Your task to perform on an android device: install app "Facebook Messenger" Image 0: 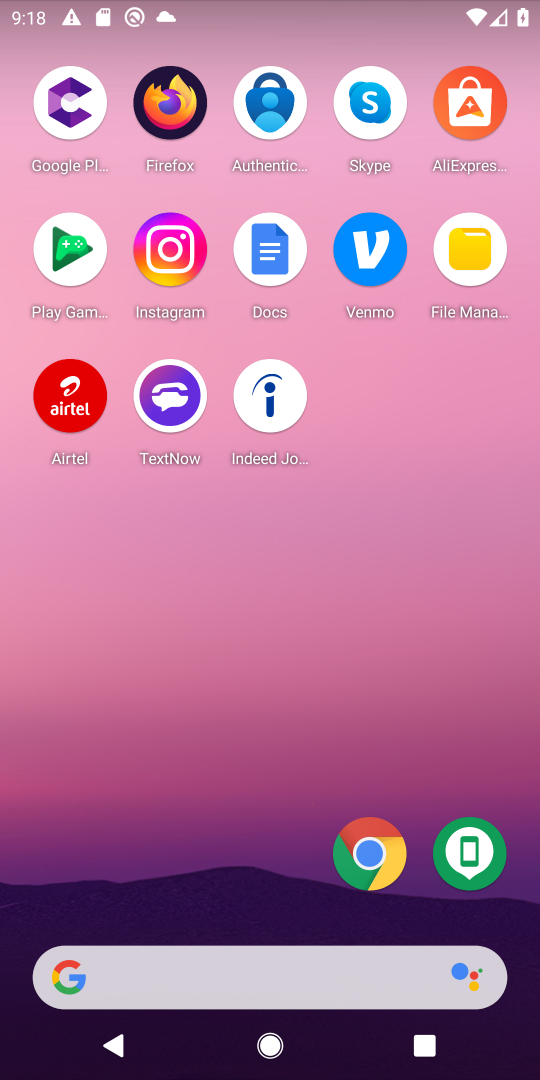
Step 0: drag from (245, 830) to (350, 34)
Your task to perform on an android device: install app "Facebook Messenger" Image 1: 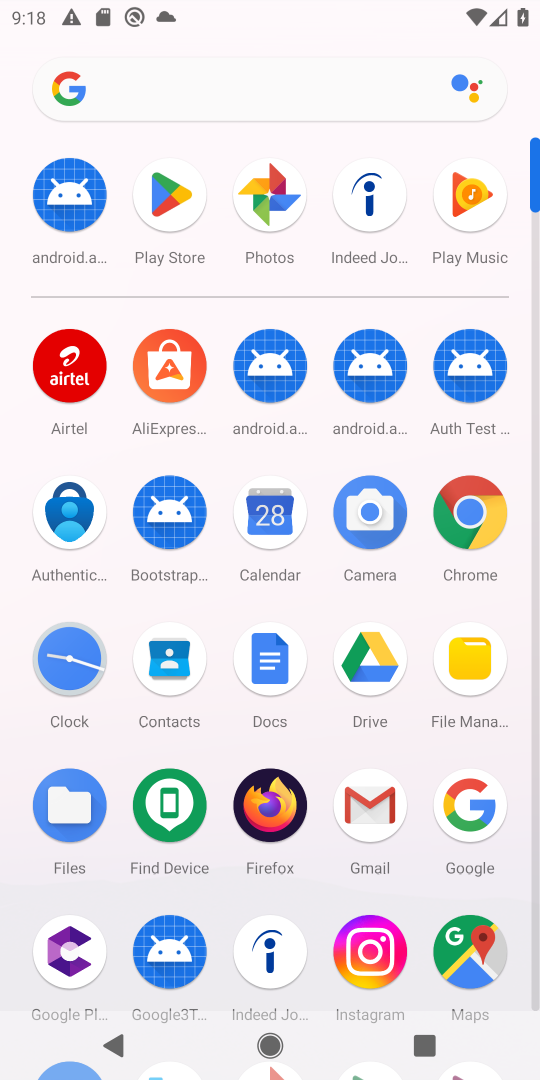
Step 1: click (163, 207)
Your task to perform on an android device: install app "Facebook Messenger" Image 2: 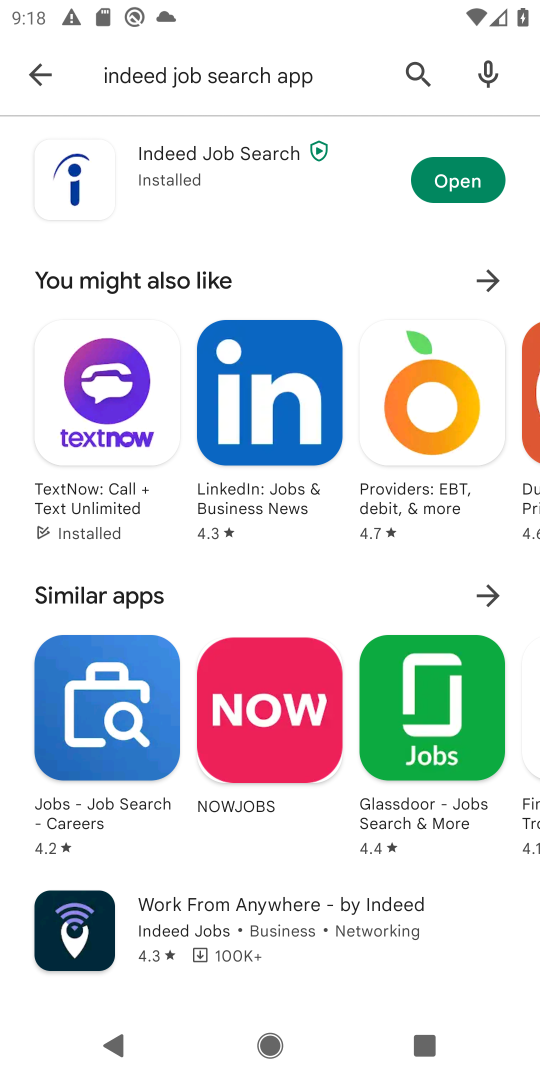
Step 2: click (35, 67)
Your task to perform on an android device: install app "Facebook Messenger" Image 3: 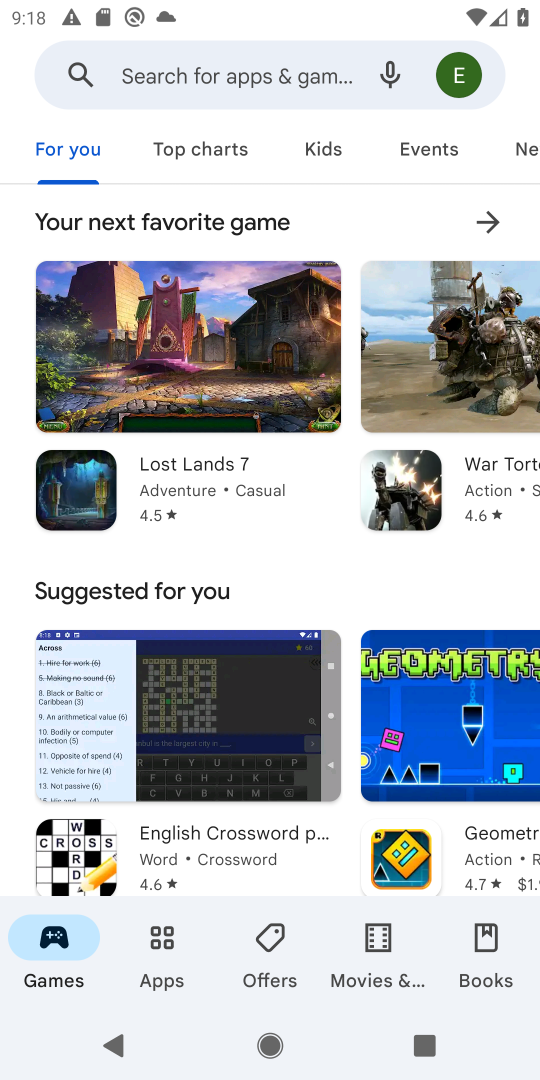
Step 3: click (304, 61)
Your task to perform on an android device: install app "Facebook Messenger" Image 4: 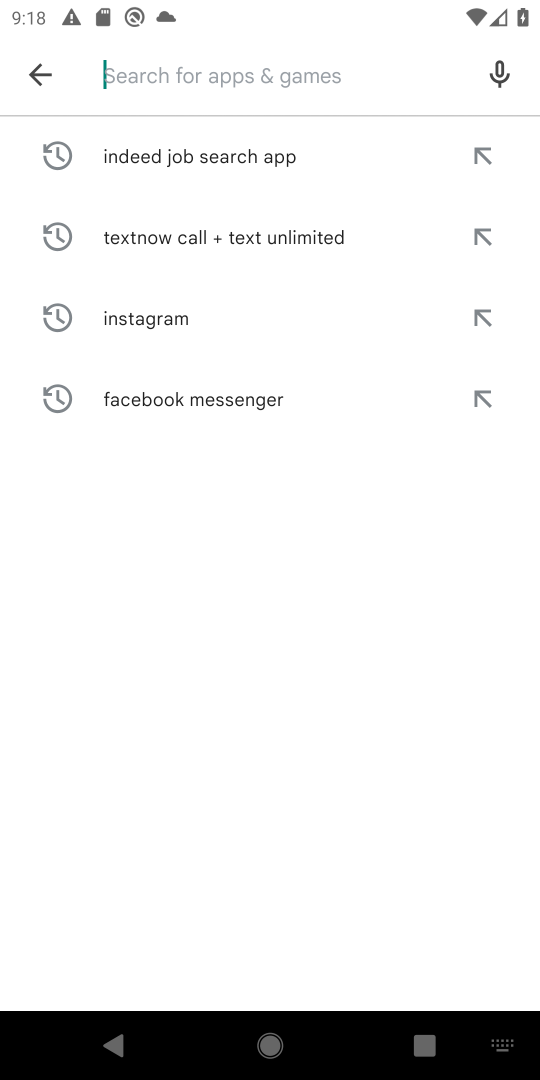
Step 4: type ""Facebook Messenger"
Your task to perform on an android device: install app "Facebook Messenger" Image 5: 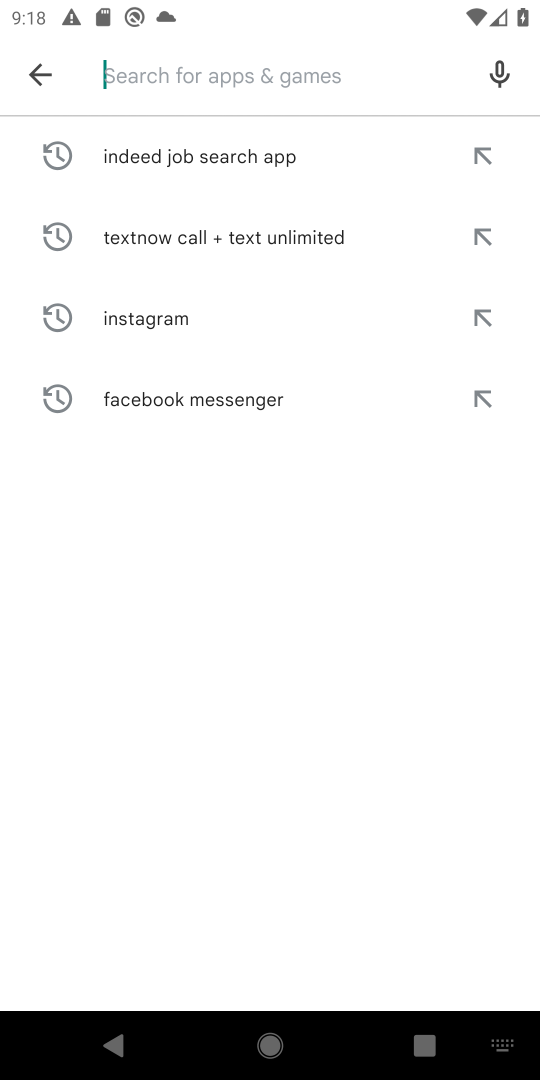
Step 5: click (154, 65)
Your task to perform on an android device: install app "Facebook Messenger" Image 6: 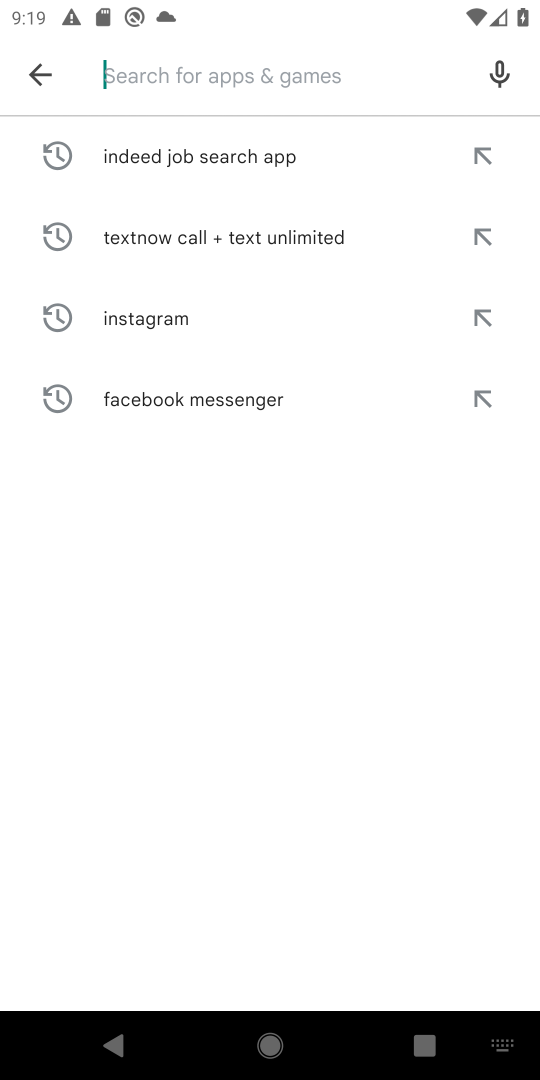
Step 6: type ""Facebook Messenger"
Your task to perform on an android device: install app "Facebook Messenger" Image 7: 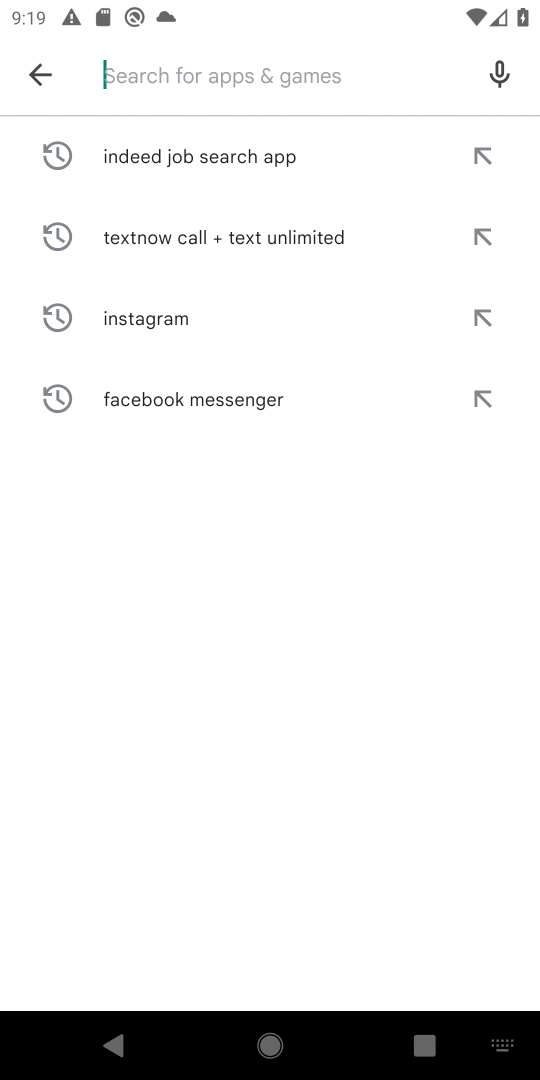
Step 7: type "facebook messenger"
Your task to perform on an android device: install app "Facebook Messenger" Image 8: 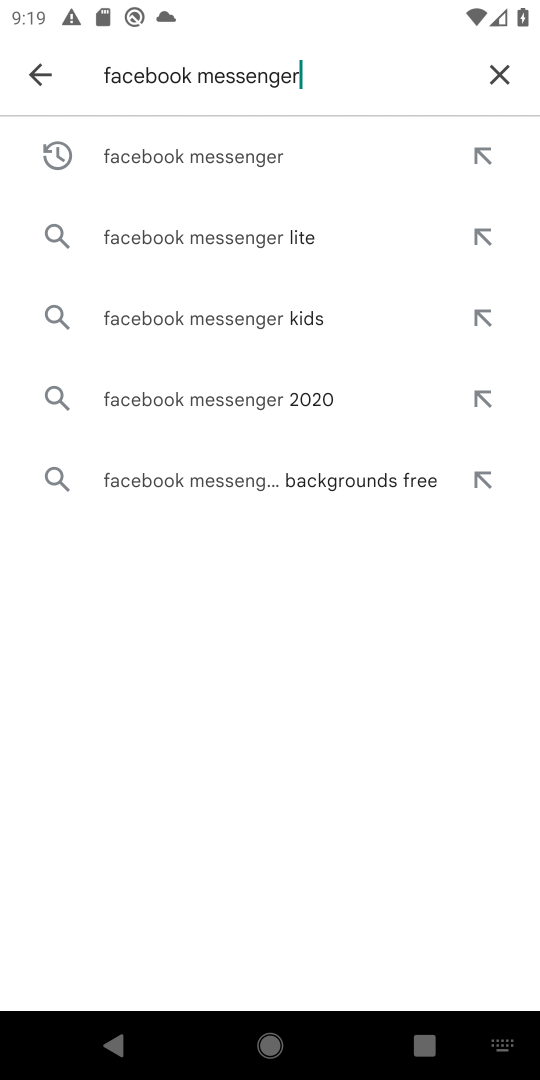
Step 8: click (204, 173)
Your task to perform on an android device: install app "Facebook Messenger" Image 9: 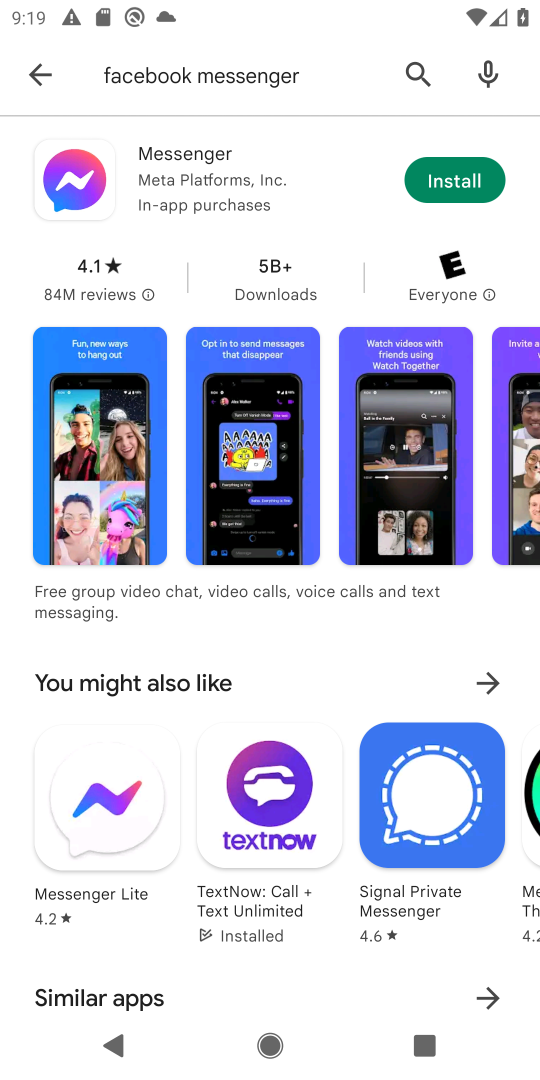
Step 9: click (459, 177)
Your task to perform on an android device: install app "Facebook Messenger" Image 10: 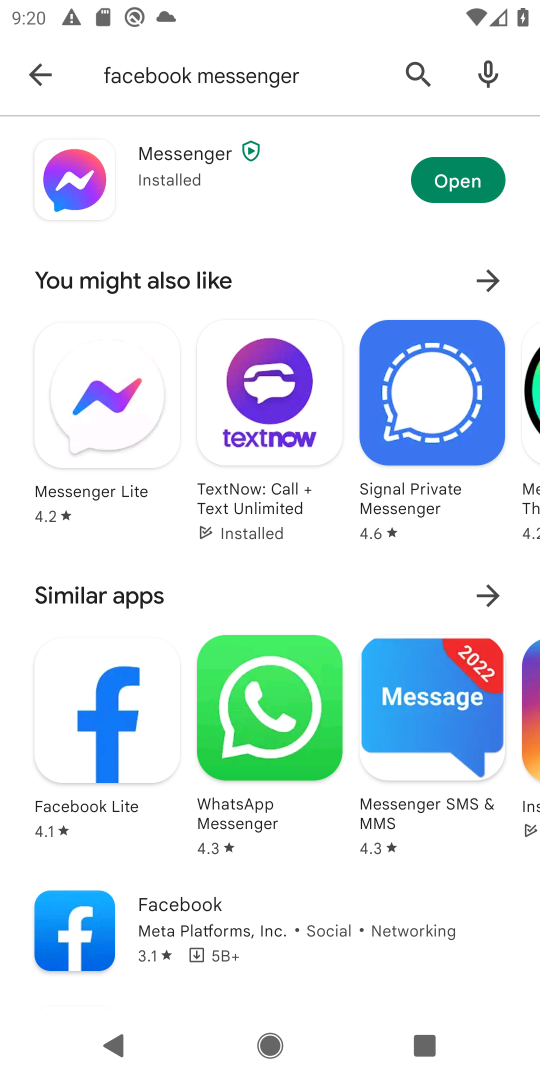
Step 10: click (465, 187)
Your task to perform on an android device: install app "Facebook Messenger" Image 11: 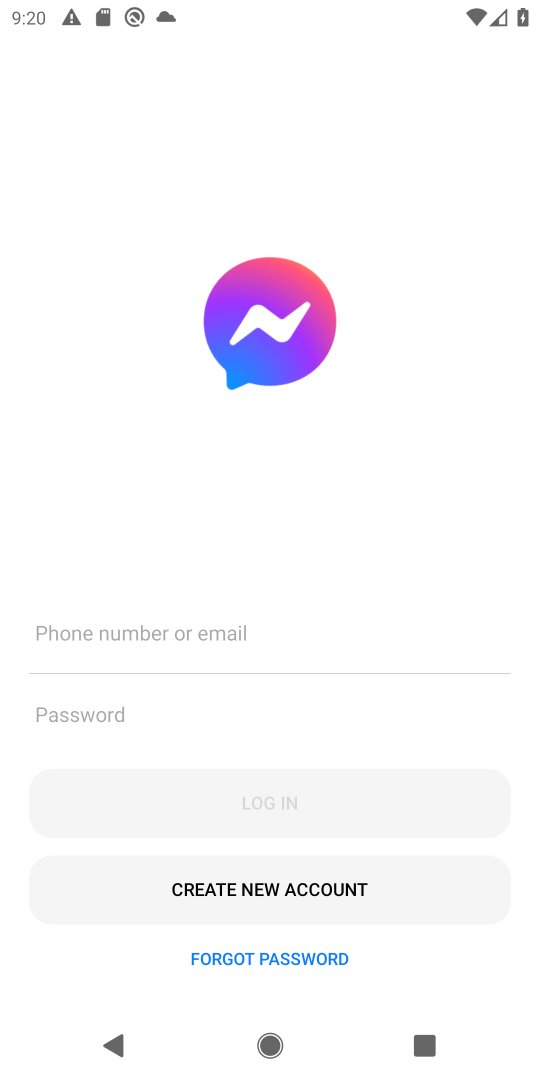
Step 11: task complete